Your task to perform on an android device: Open Wikipedia Image 0: 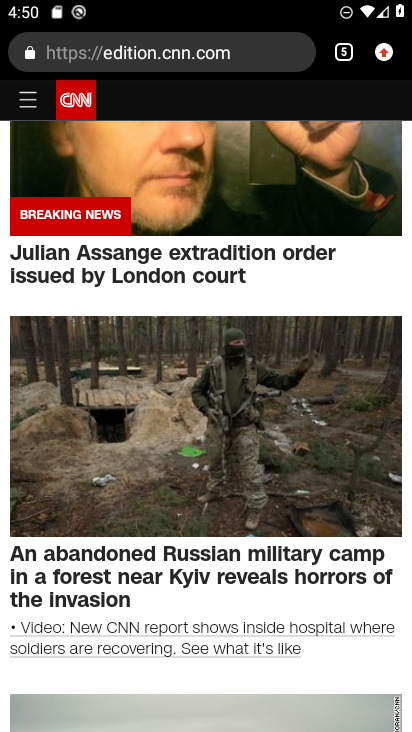
Step 0: click (347, 57)
Your task to perform on an android device: Open Wikipedia Image 1: 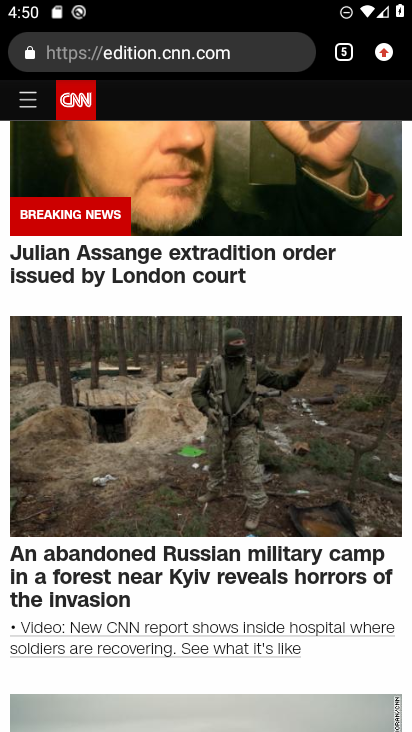
Step 1: click (343, 53)
Your task to perform on an android device: Open Wikipedia Image 2: 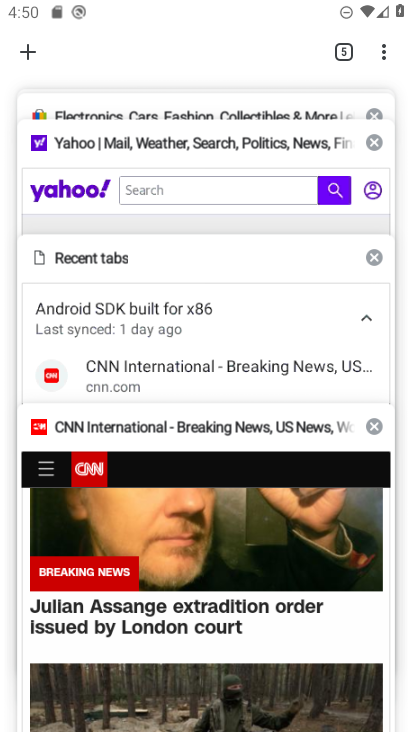
Step 2: click (24, 51)
Your task to perform on an android device: Open Wikipedia Image 3: 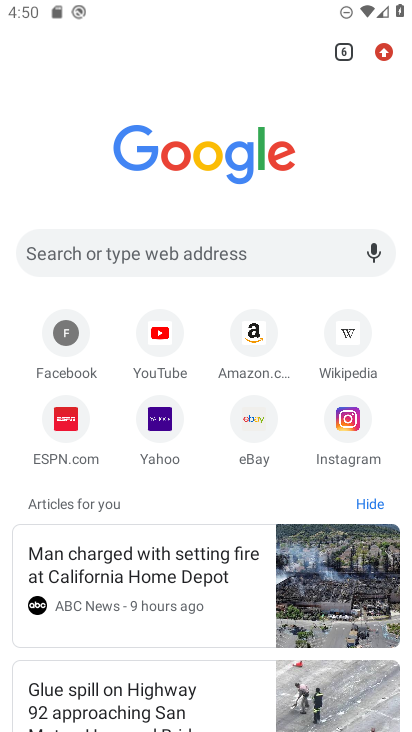
Step 3: click (350, 340)
Your task to perform on an android device: Open Wikipedia Image 4: 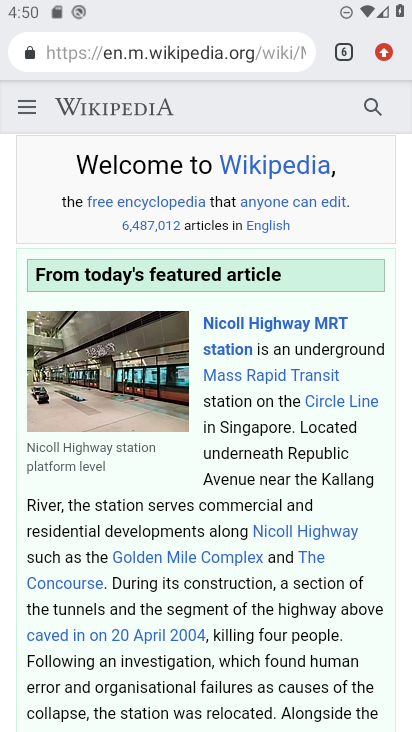
Step 4: task complete